Your task to perform on an android device: toggle improve location accuracy Image 0: 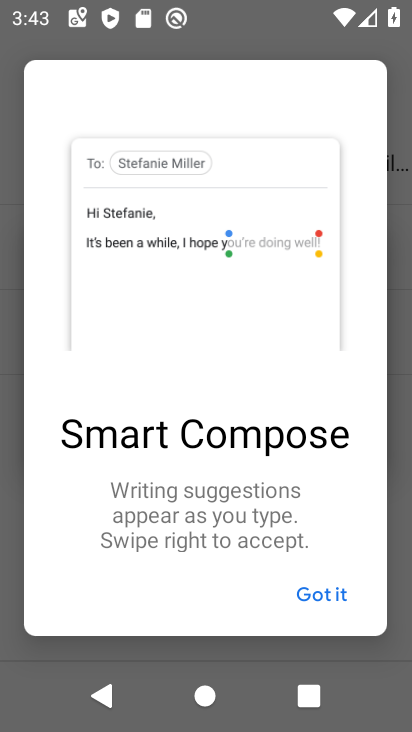
Step 0: click (322, 596)
Your task to perform on an android device: toggle improve location accuracy Image 1: 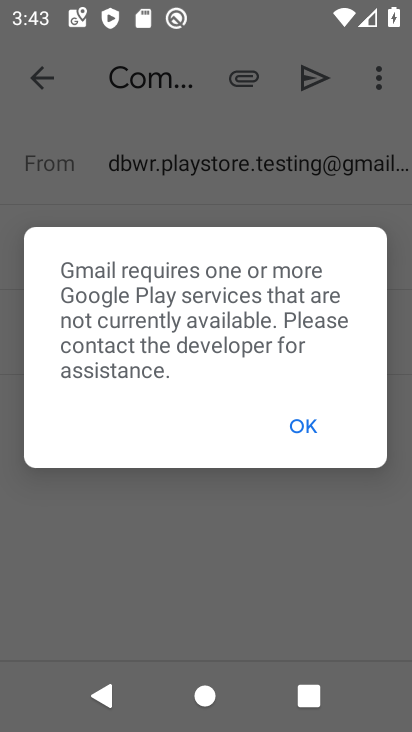
Step 1: drag from (237, 558) to (252, 163)
Your task to perform on an android device: toggle improve location accuracy Image 2: 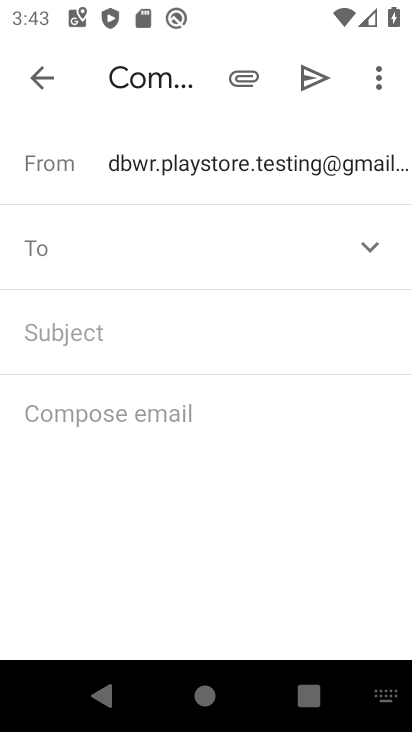
Step 2: press home button
Your task to perform on an android device: toggle improve location accuracy Image 3: 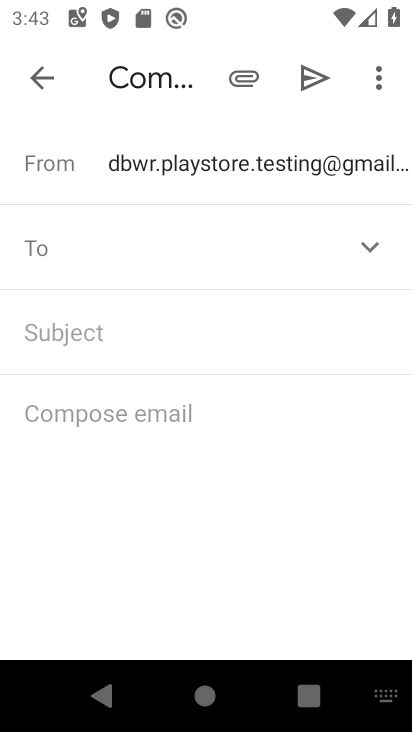
Step 3: drag from (223, 556) to (287, 114)
Your task to perform on an android device: toggle improve location accuracy Image 4: 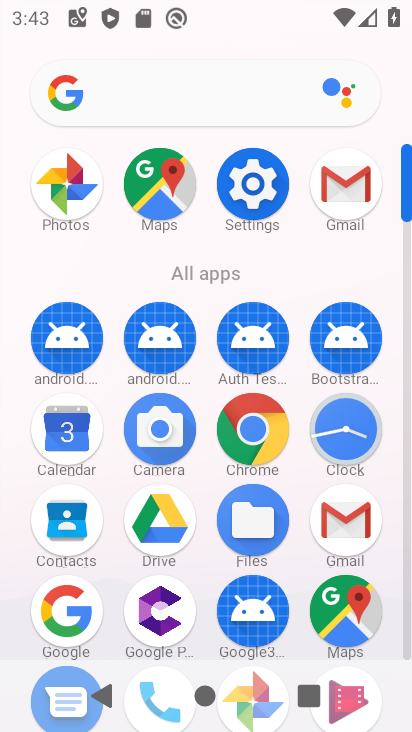
Step 4: click (238, 171)
Your task to perform on an android device: toggle improve location accuracy Image 5: 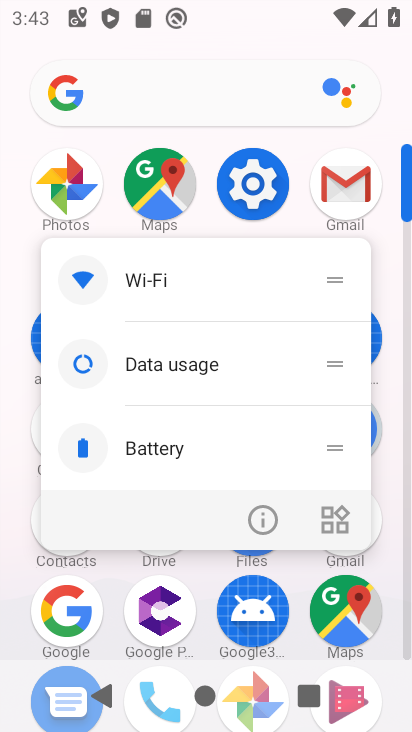
Step 5: click (247, 523)
Your task to perform on an android device: toggle improve location accuracy Image 6: 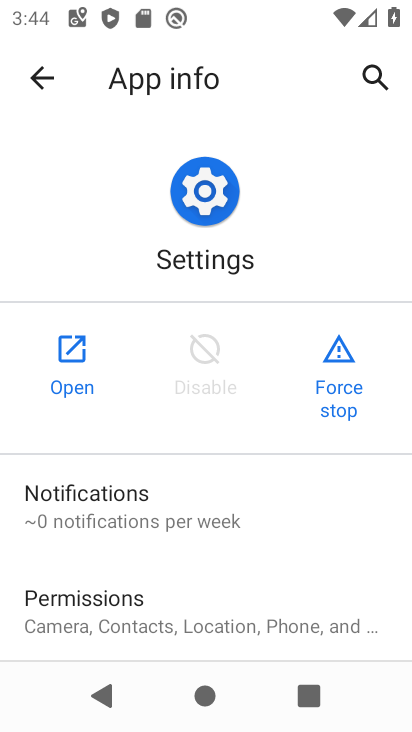
Step 6: click (47, 348)
Your task to perform on an android device: toggle improve location accuracy Image 7: 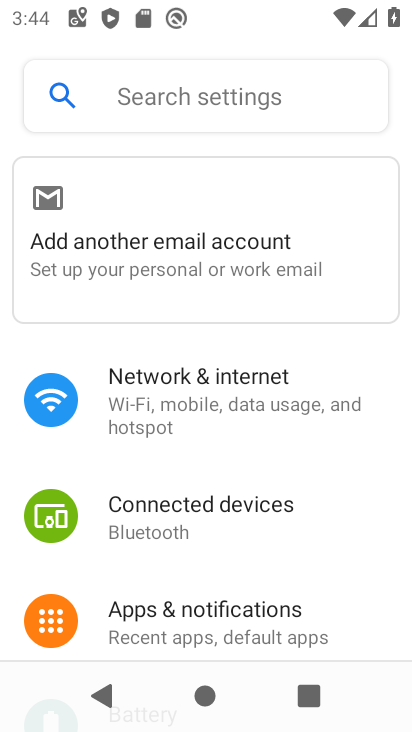
Step 7: drag from (205, 554) to (306, 44)
Your task to perform on an android device: toggle improve location accuracy Image 8: 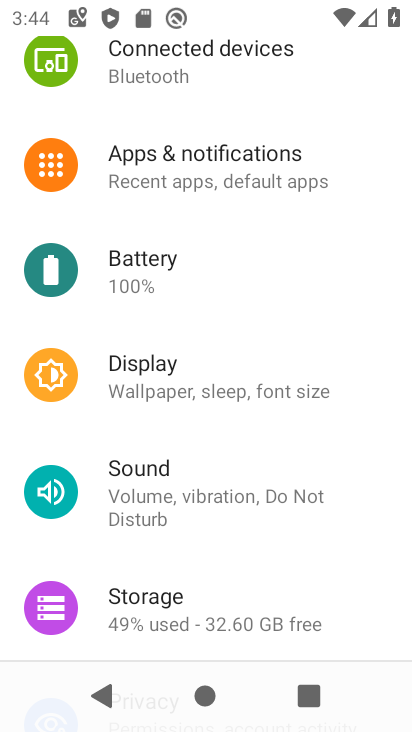
Step 8: drag from (221, 626) to (313, 68)
Your task to perform on an android device: toggle improve location accuracy Image 9: 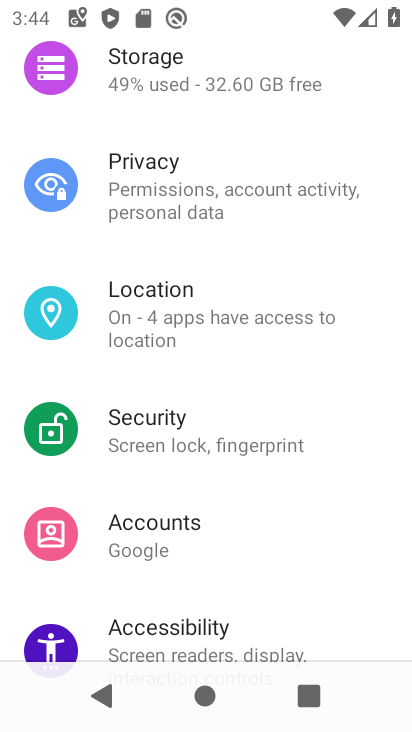
Step 9: click (164, 306)
Your task to perform on an android device: toggle improve location accuracy Image 10: 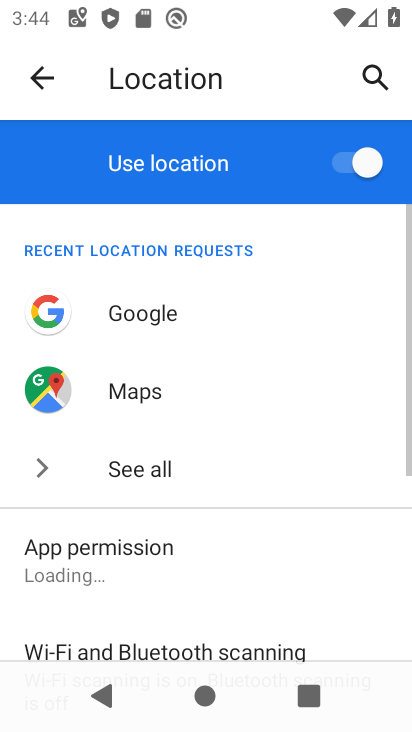
Step 10: drag from (196, 543) to (263, 57)
Your task to perform on an android device: toggle improve location accuracy Image 11: 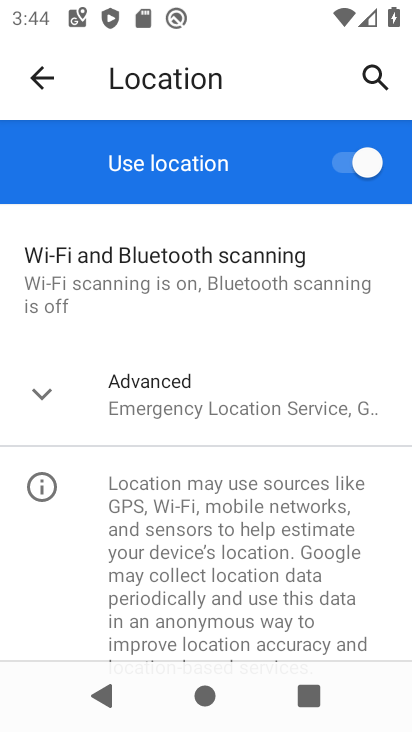
Step 11: click (145, 398)
Your task to perform on an android device: toggle improve location accuracy Image 12: 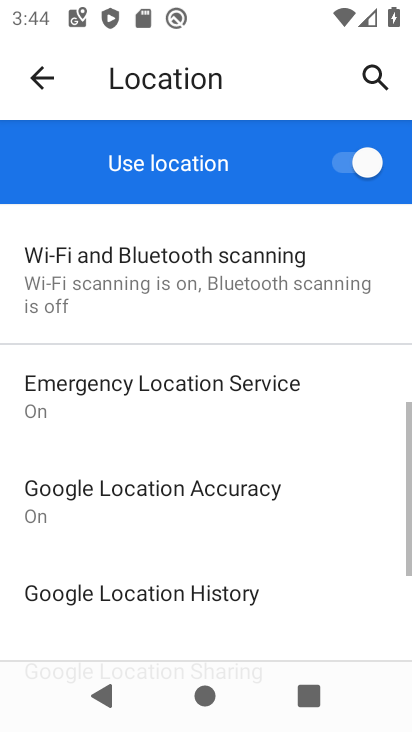
Step 12: drag from (176, 433) to (212, 195)
Your task to perform on an android device: toggle improve location accuracy Image 13: 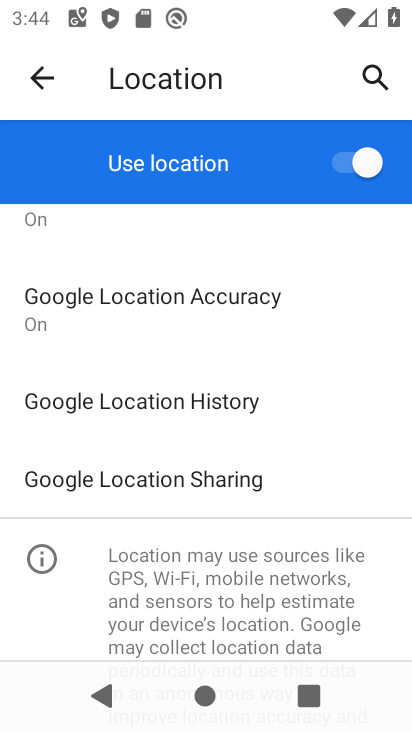
Step 13: click (231, 309)
Your task to perform on an android device: toggle improve location accuracy Image 14: 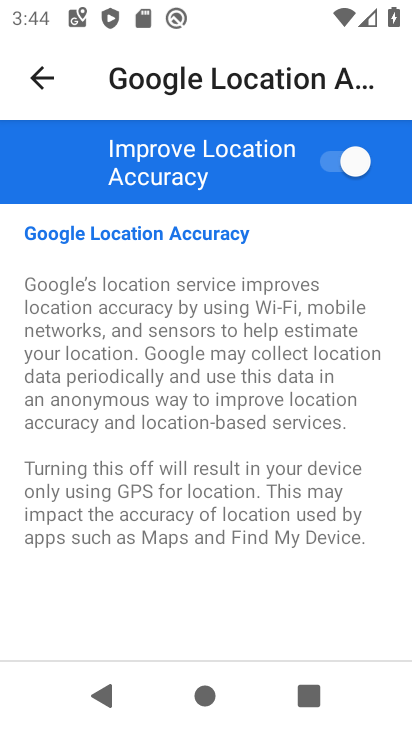
Step 14: drag from (186, 525) to (251, 191)
Your task to perform on an android device: toggle improve location accuracy Image 15: 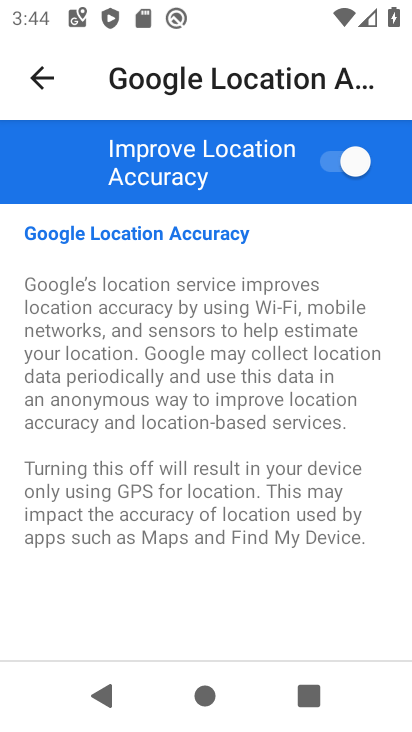
Step 15: click (272, 203)
Your task to perform on an android device: toggle improve location accuracy Image 16: 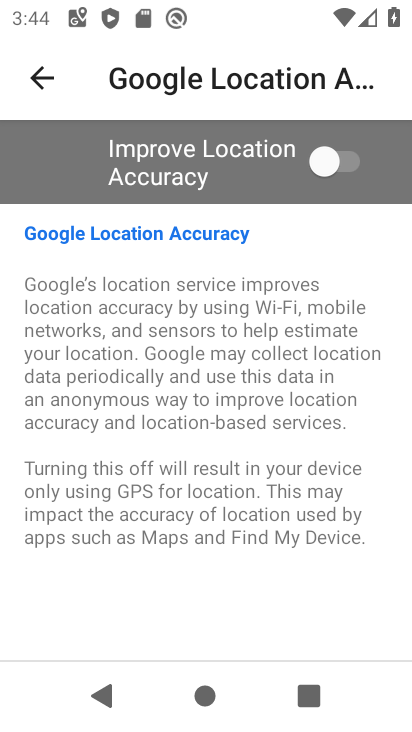
Step 16: drag from (231, 486) to (275, 261)
Your task to perform on an android device: toggle improve location accuracy Image 17: 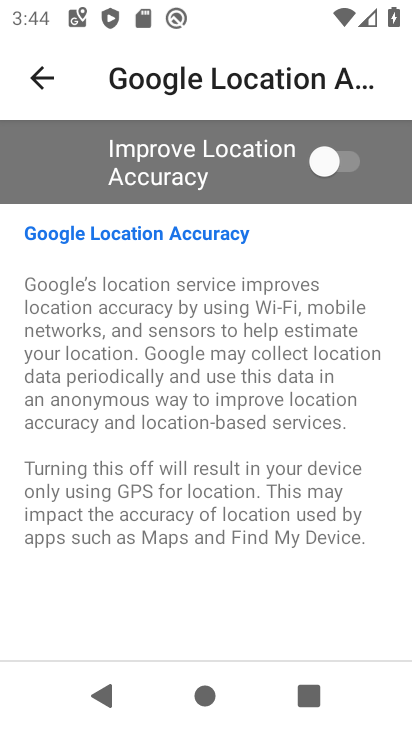
Step 17: click (352, 172)
Your task to perform on an android device: toggle improve location accuracy Image 18: 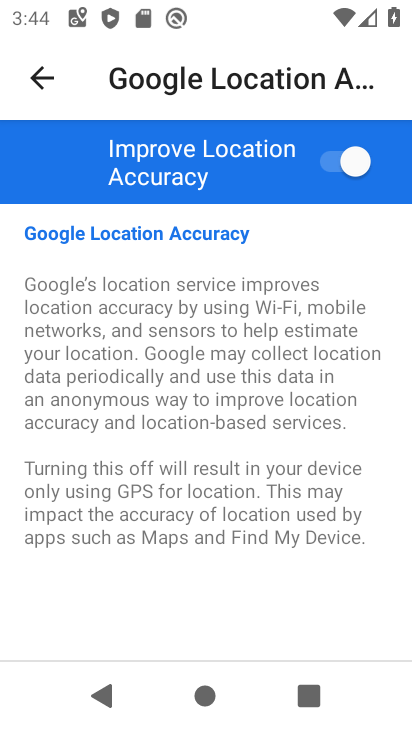
Step 18: click (352, 172)
Your task to perform on an android device: toggle improve location accuracy Image 19: 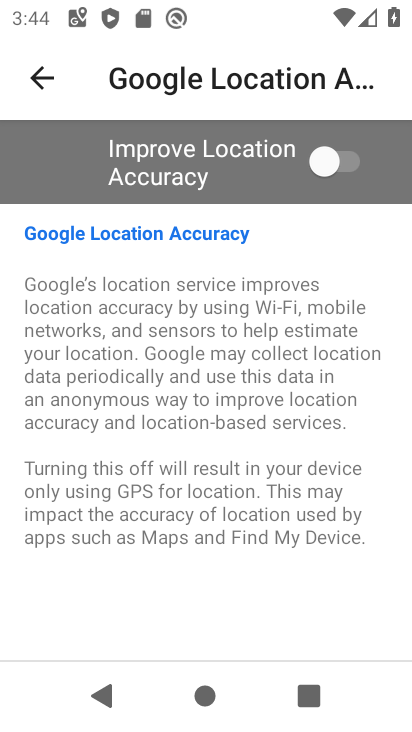
Step 19: task complete